Your task to perform on an android device: What is the news today? Image 0: 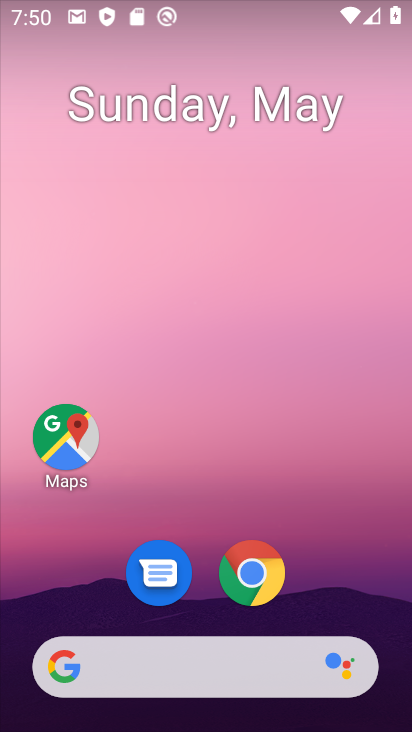
Step 0: click (201, 669)
Your task to perform on an android device: What is the news today? Image 1: 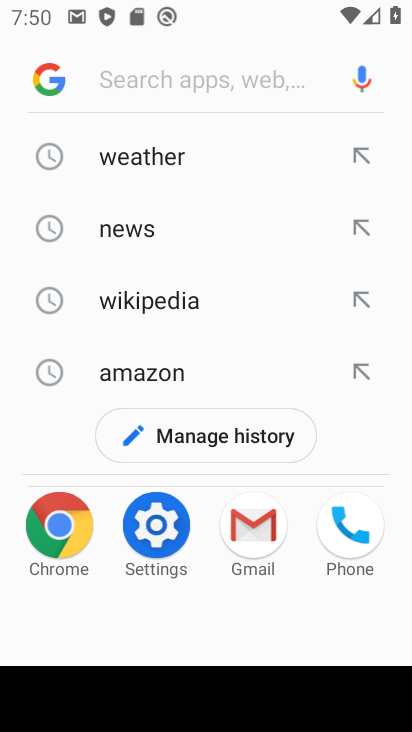
Step 1: click (118, 216)
Your task to perform on an android device: What is the news today? Image 2: 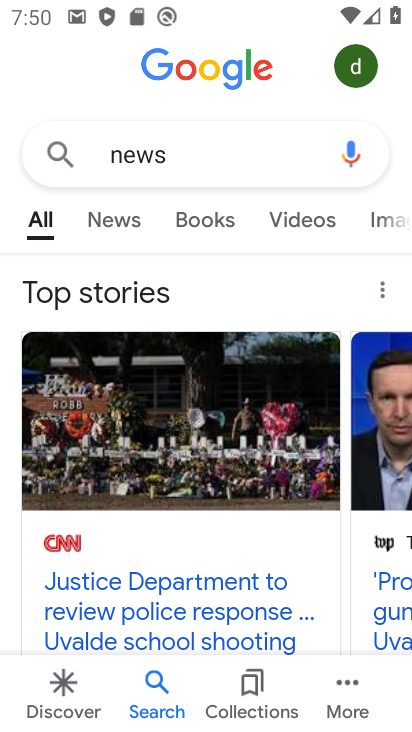
Step 2: click (107, 209)
Your task to perform on an android device: What is the news today? Image 3: 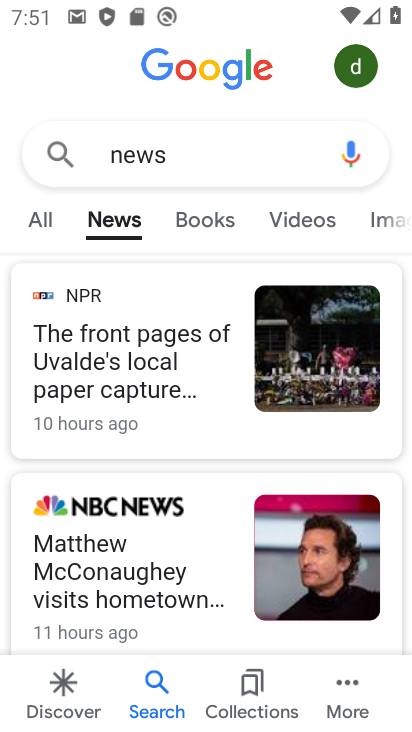
Step 3: task complete